Your task to perform on an android device: Open Chrome and go to settings Image 0: 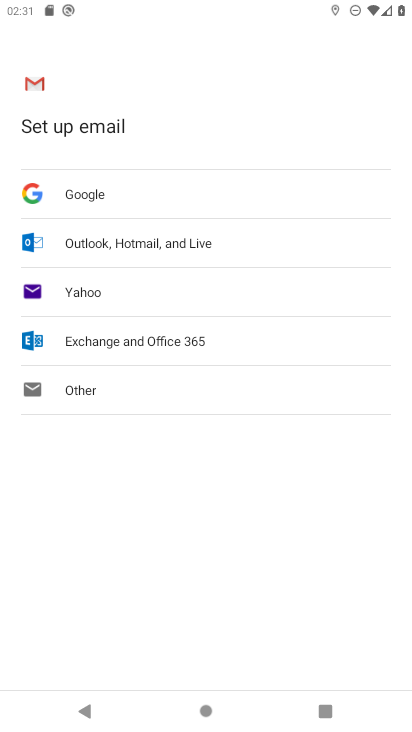
Step 0: press home button
Your task to perform on an android device: Open Chrome and go to settings Image 1: 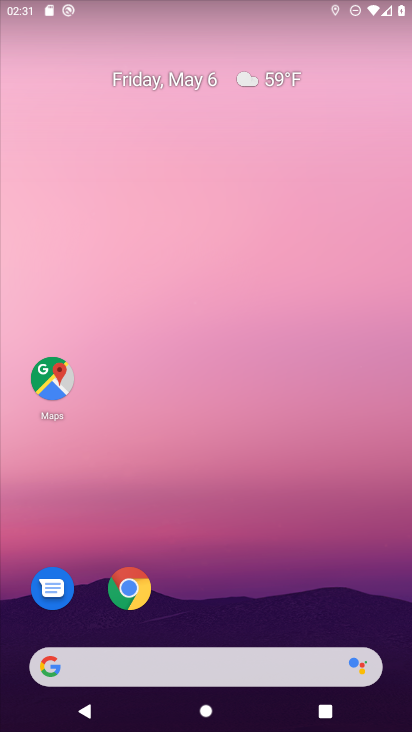
Step 1: click (127, 596)
Your task to perform on an android device: Open Chrome and go to settings Image 2: 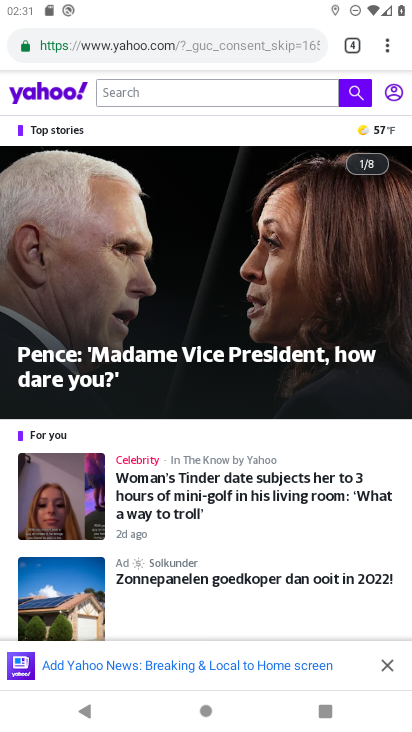
Step 2: click (377, 46)
Your task to perform on an android device: Open Chrome and go to settings Image 3: 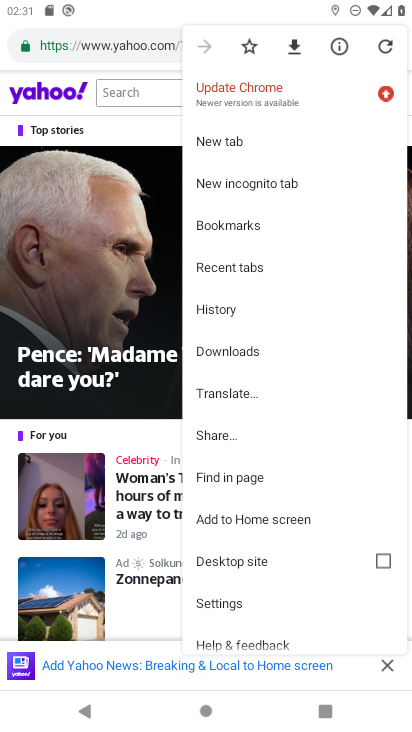
Step 3: click (263, 595)
Your task to perform on an android device: Open Chrome and go to settings Image 4: 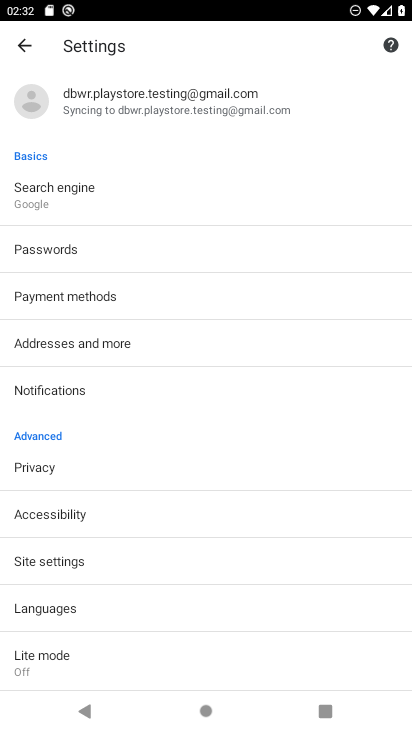
Step 4: task complete